Your task to perform on an android device: Open the map Image 0: 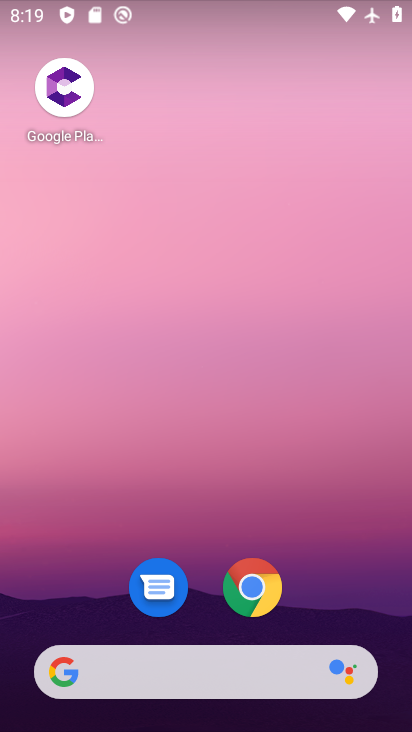
Step 0: press home button
Your task to perform on an android device: Open the map Image 1: 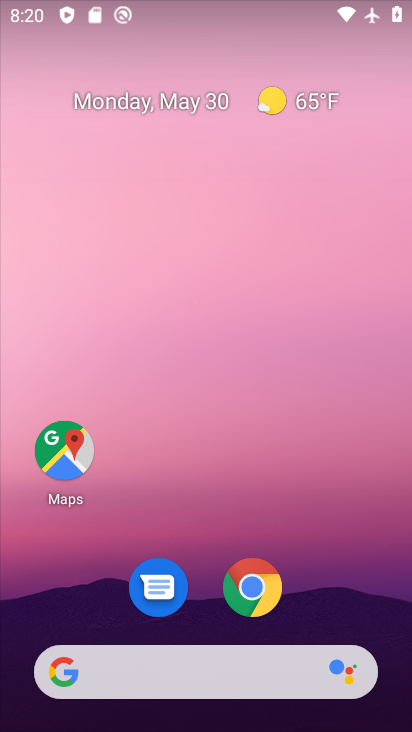
Step 1: click (76, 458)
Your task to perform on an android device: Open the map Image 2: 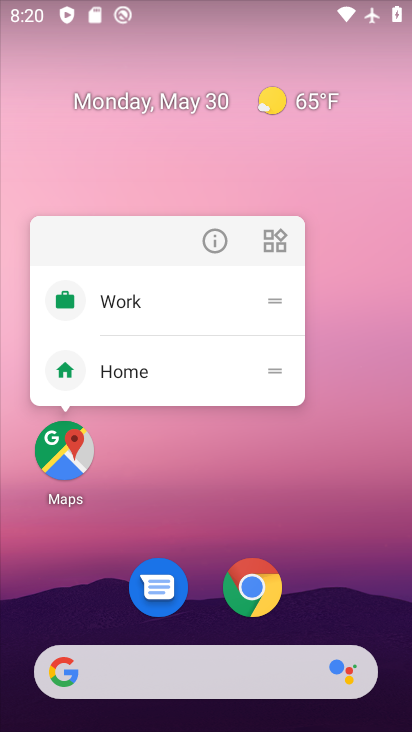
Step 2: click (71, 460)
Your task to perform on an android device: Open the map Image 3: 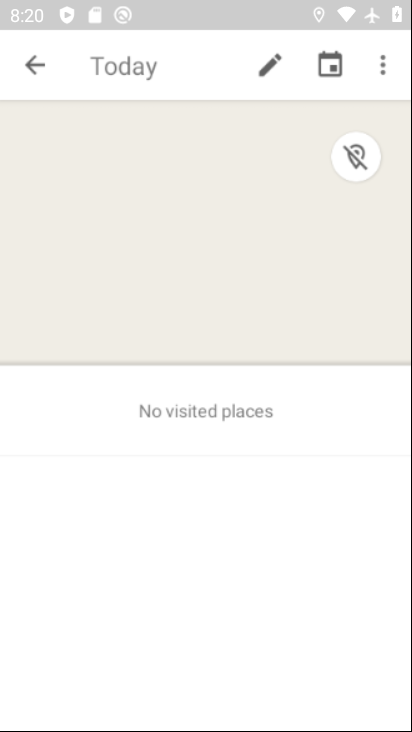
Step 3: click (29, 66)
Your task to perform on an android device: Open the map Image 4: 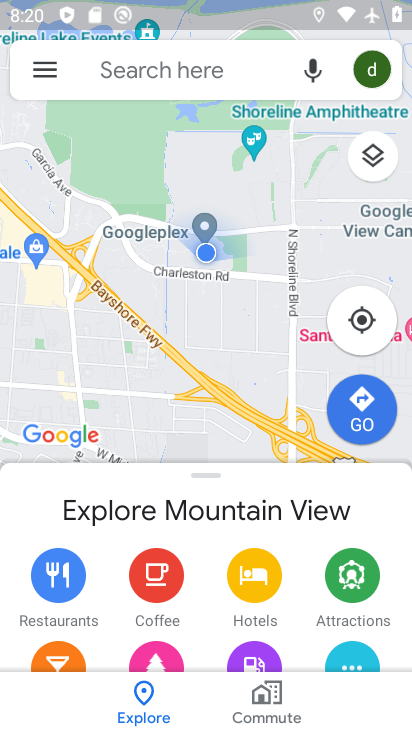
Step 4: task complete